Your task to perform on an android device: What's the weather? Image 0: 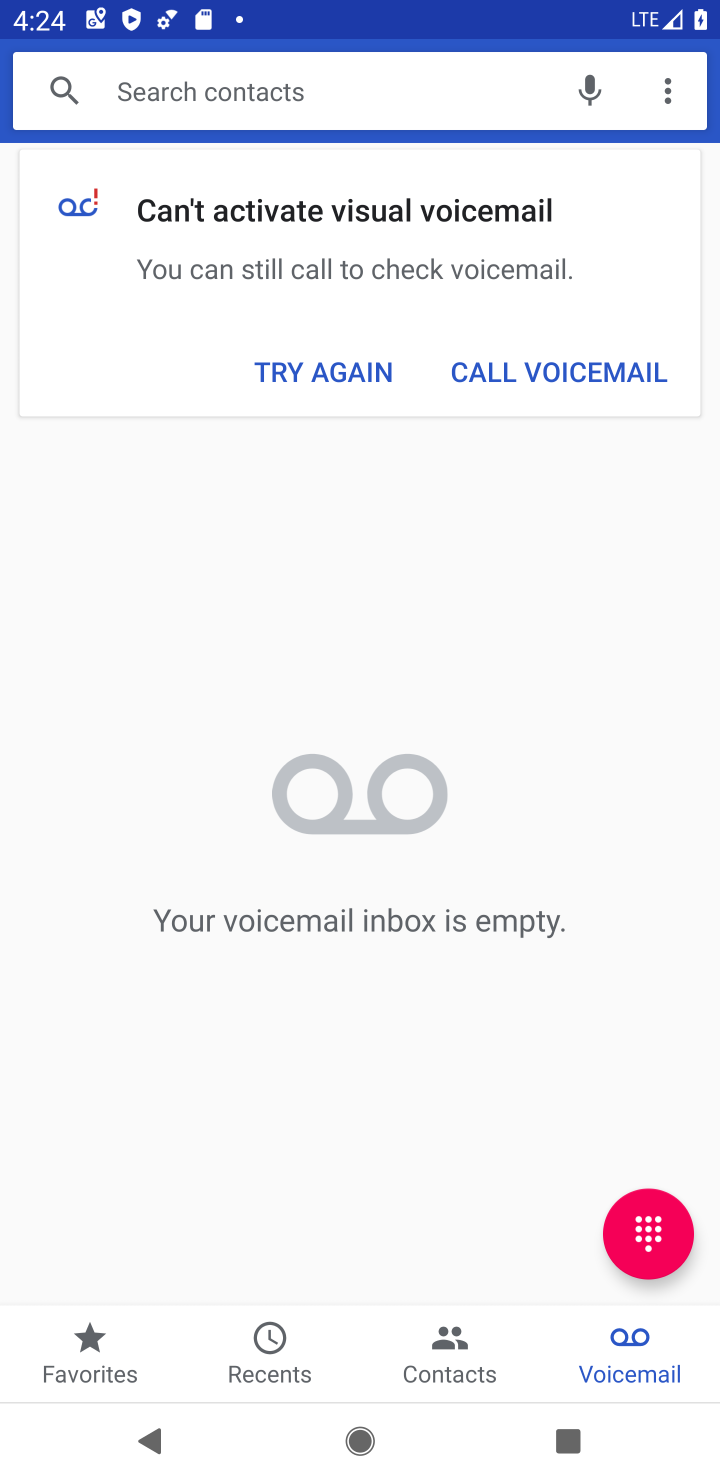
Step 0: press home button
Your task to perform on an android device: What's the weather? Image 1: 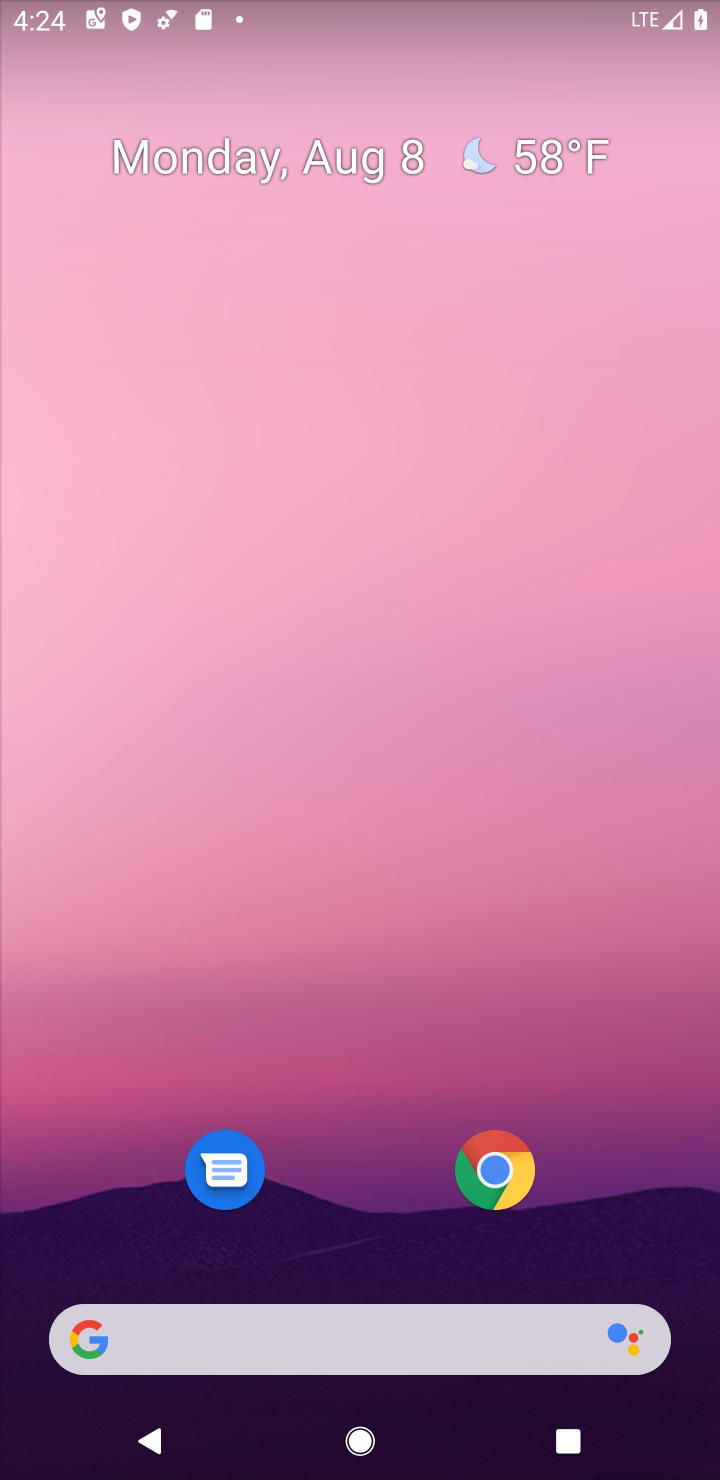
Step 1: drag from (348, 1028) to (348, 346)
Your task to perform on an android device: What's the weather? Image 2: 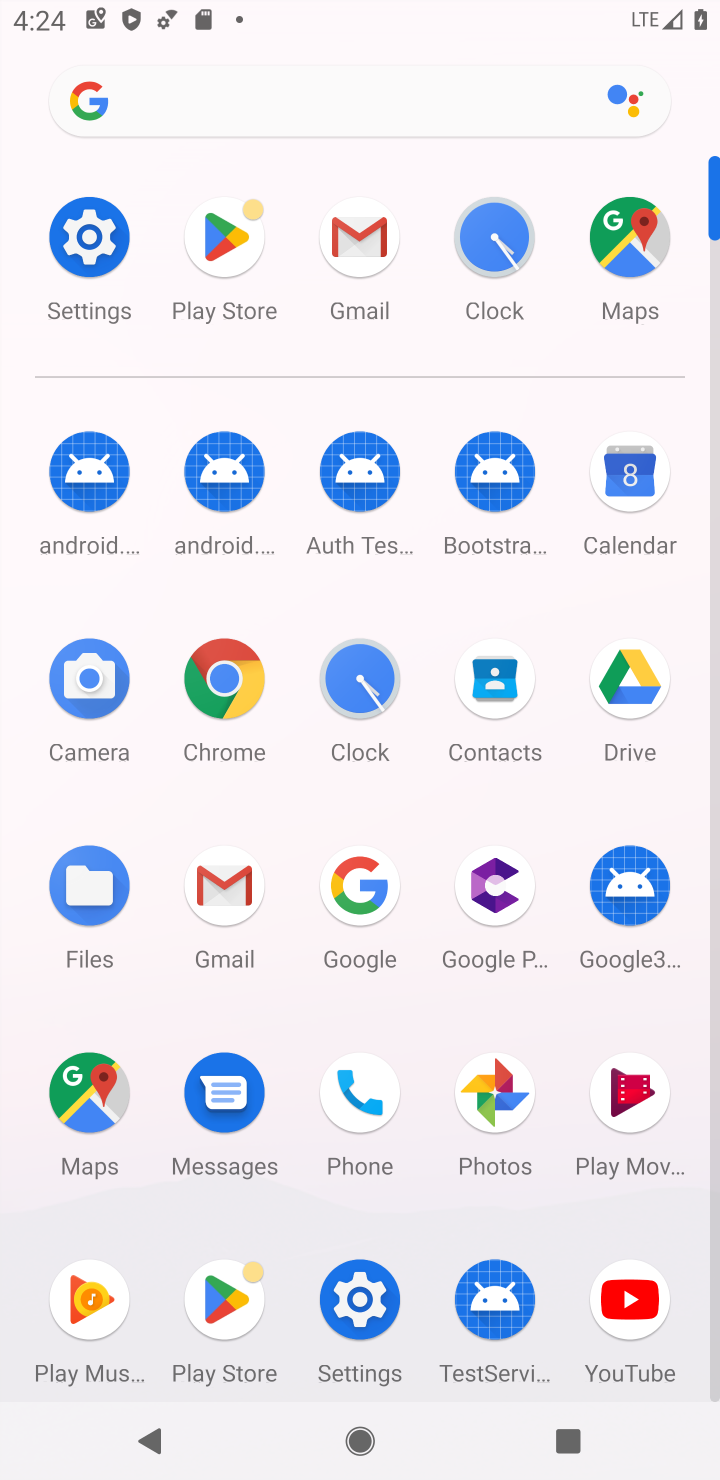
Step 2: click (357, 890)
Your task to perform on an android device: What's the weather? Image 3: 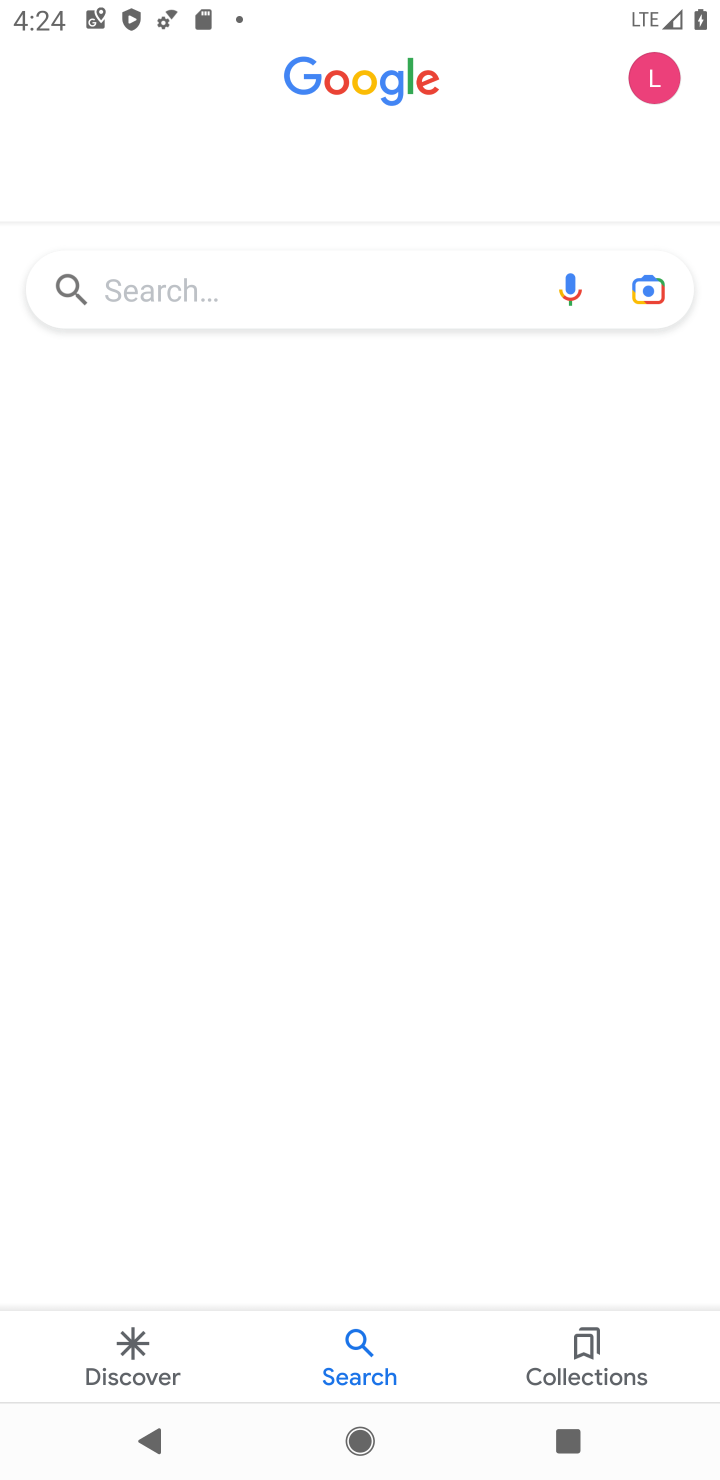
Step 3: click (273, 294)
Your task to perform on an android device: What's the weather? Image 4: 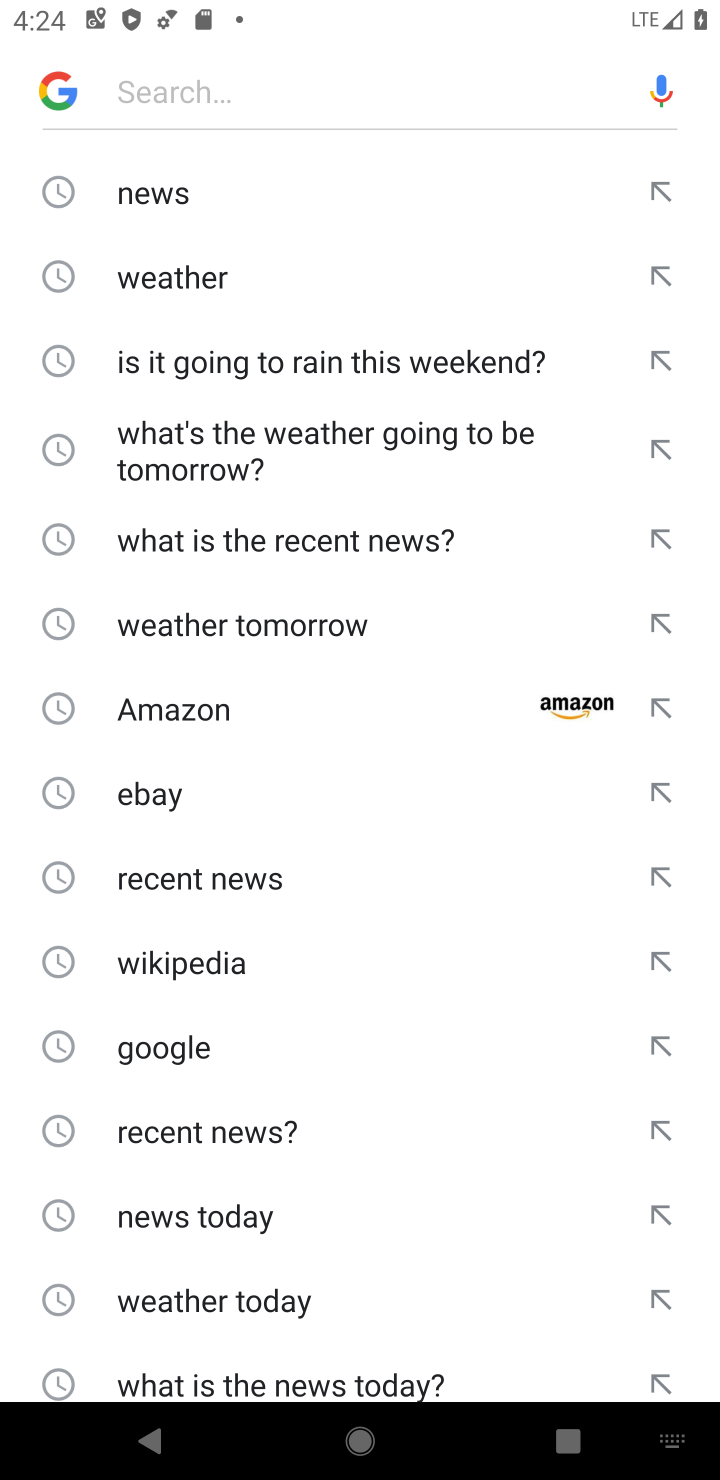
Step 4: click (240, 275)
Your task to perform on an android device: What's the weather? Image 5: 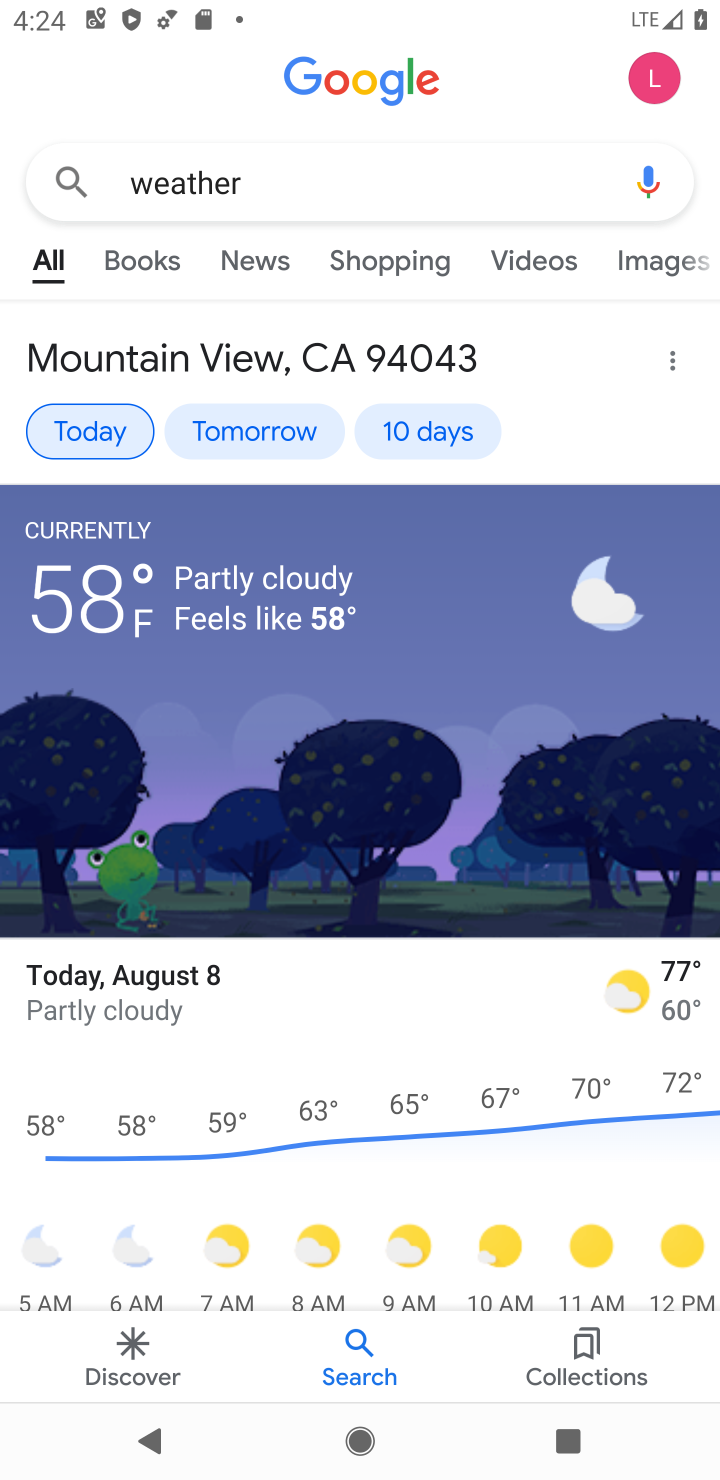
Step 5: task complete